Your task to perform on an android device: Do I have any events today? Image 0: 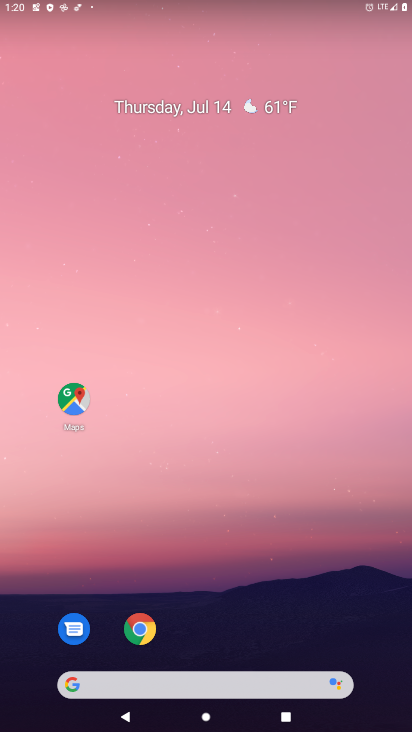
Step 0: drag from (234, 563) to (241, 187)
Your task to perform on an android device: Do I have any events today? Image 1: 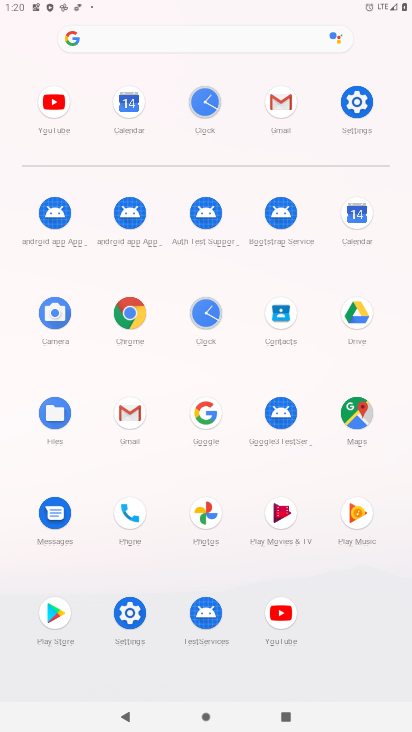
Step 1: click (361, 216)
Your task to perform on an android device: Do I have any events today? Image 2: 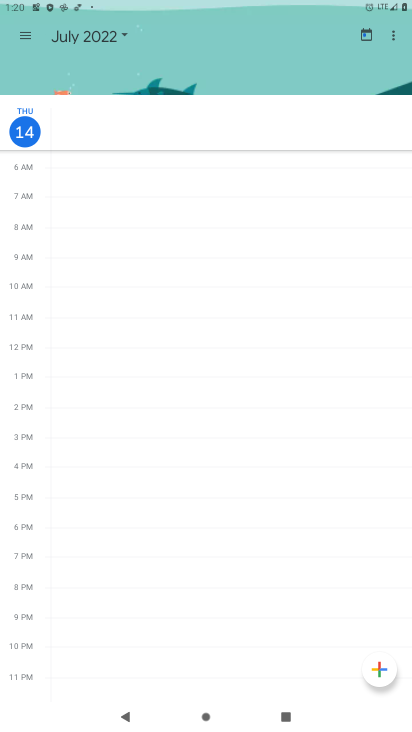
Step 2: task complete